Your task to perform on an android device: Open the stopwatch Image 0: 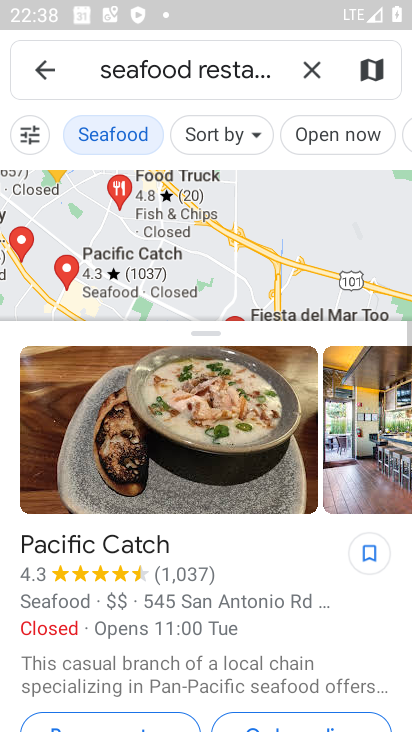
Step 0: press home button
Your task to perform on an android device: Open the stopwatch Image 1: 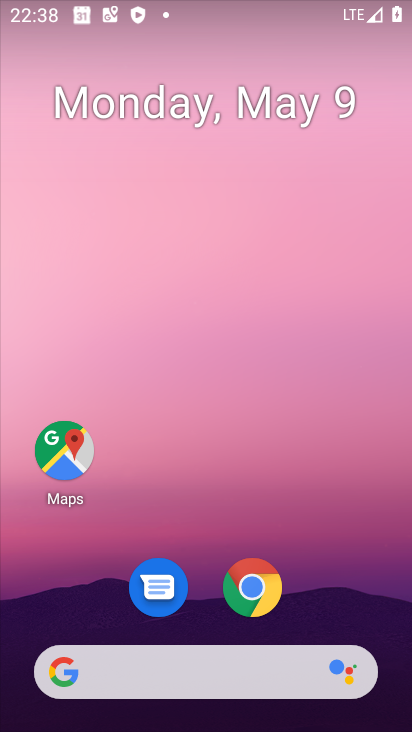
Step 1: drag from (209, 617) to (260, 142)
Your task to perform on an android device: Open the stopwatch Image 2: 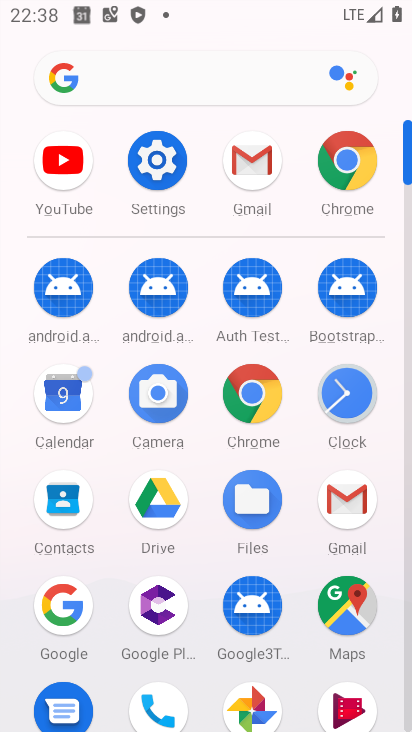
Step 2: click (342, 384)
Your task to perform on an android device: Open the stopwatch Image 3: 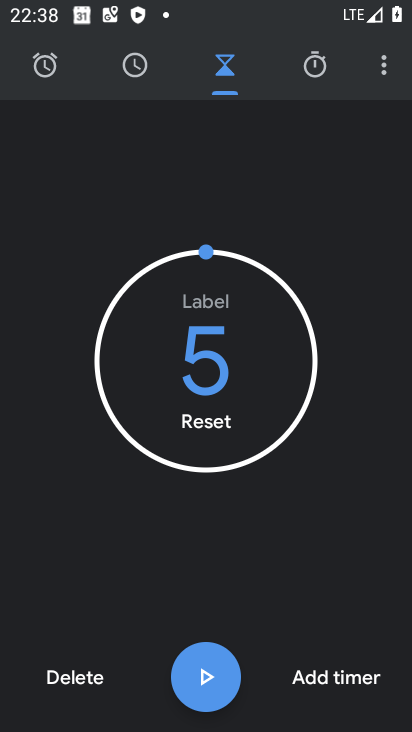
Step 3: click (312, 76)
Your task to perform on an android device: Open the stopwatch Image 4: 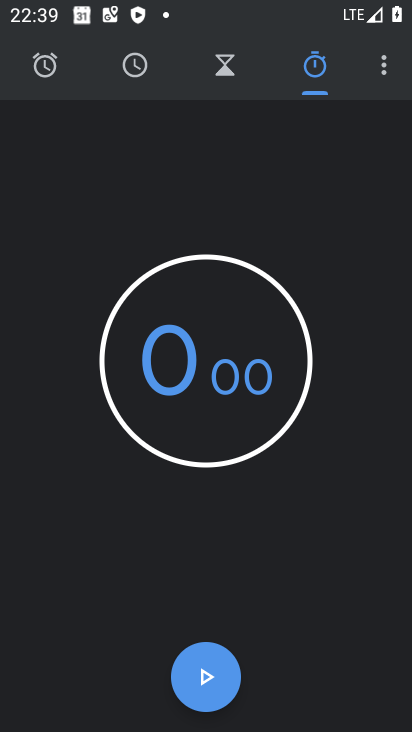
Step 4: task complete